Your task to perform on an android device: Open wifi settings Image 0: 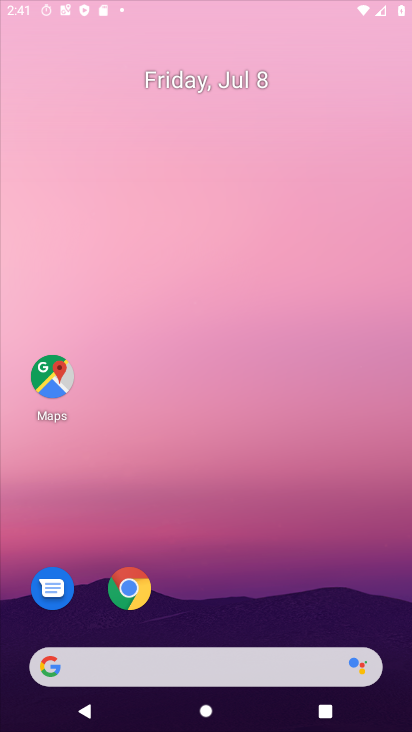
Step 0: press home button
Your task to perform on an android device: Open wifi settings Image 1: 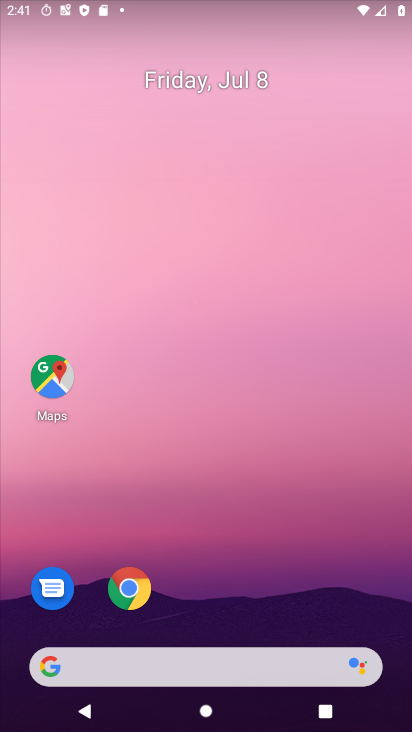
Step 1: drag from (294, 564) to (411, 61)
Your task to perform on an android device: Open wifi settings Image 2: 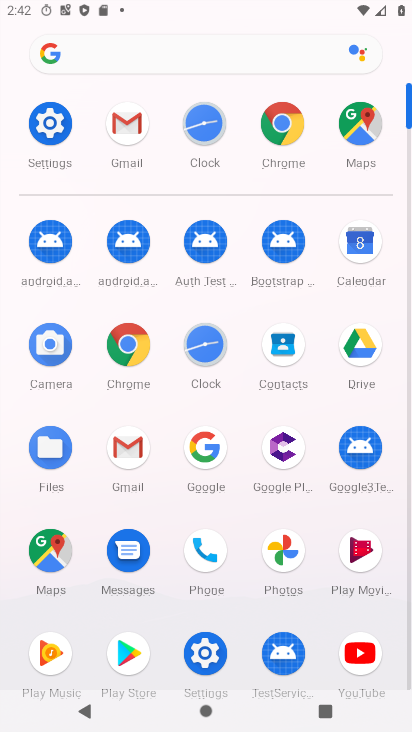
Step 2: click (61, 138)
Your task to perform on an android device: Open wifi settings Image 3: 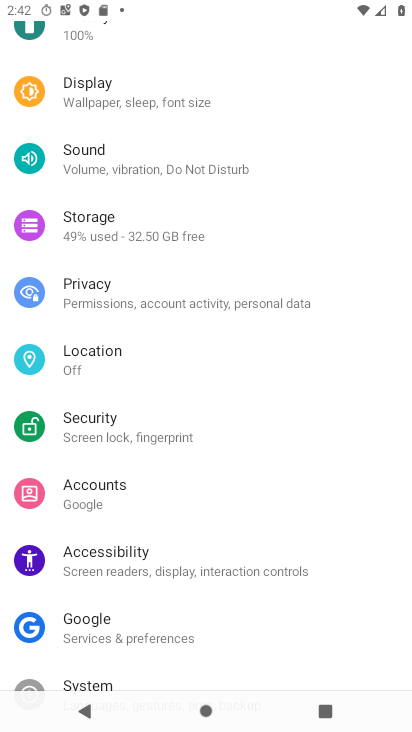
Step 3: drag from (223, 439) to (199, 613)
Your task to perform on an android device: Open wifi settings Image 4: 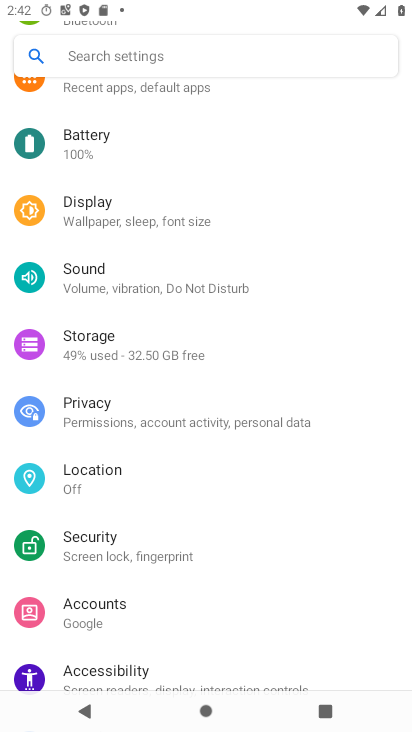
Step 4: drag from (342, 145) to (272, 661)
Your task to perform on an android device: Open wifi settings Image 5: 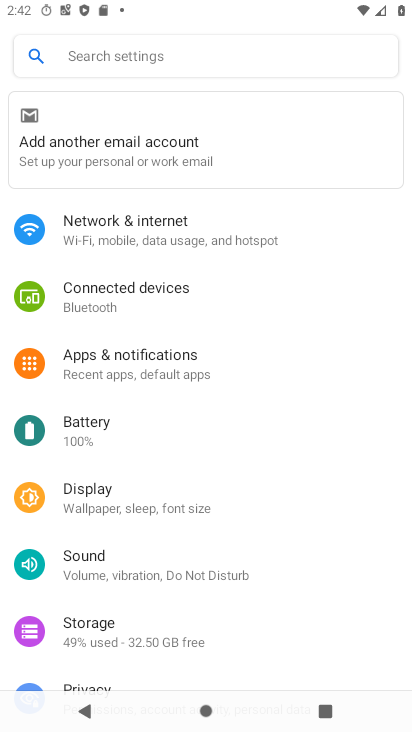
Step 5: click (135, 227)
Your task to perform on an android device: Open wifi settings Image 6: 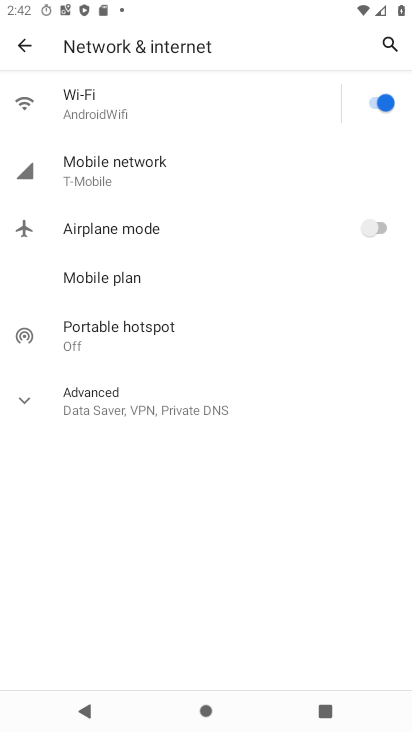
Step 6: click (89, 98)
Your task to perform on an android device: Open wifi settings Image 7: 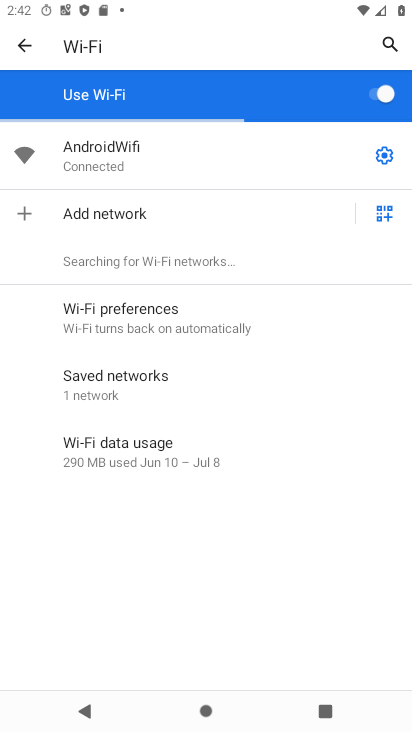
Step 7: task complete